Your task to perform on an android device: see tabs open on other devices in the chrome app Image 0: 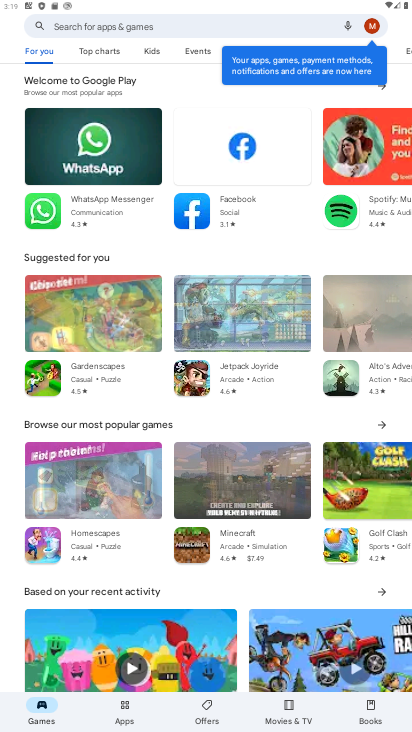
Step 0: press home button
Your task to perform on an android device: see tabs open on other devices in the chrome app Image 1: 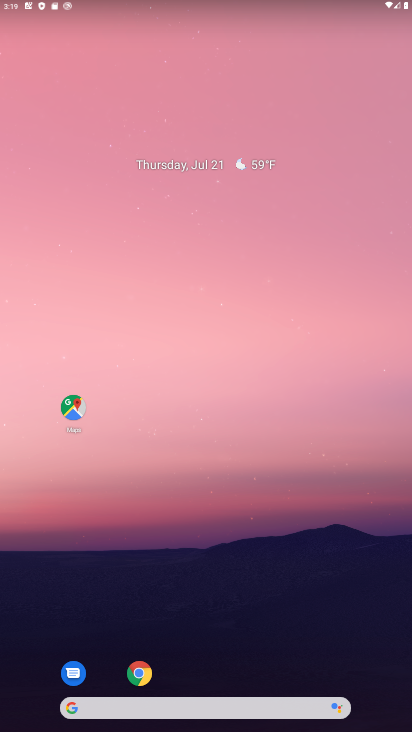
Step 1: drag from (276, 637) to (186, 75)
Your task to perform on an android device: see tabs open on other devices in the chrome app Image 2: 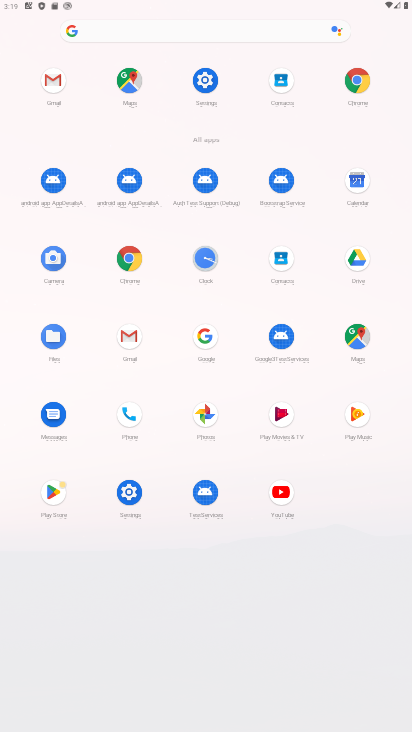
Step 2: click (350, 85)
Your task to perform on an android device: see tabs open on other devices in the chrome app Image 3: 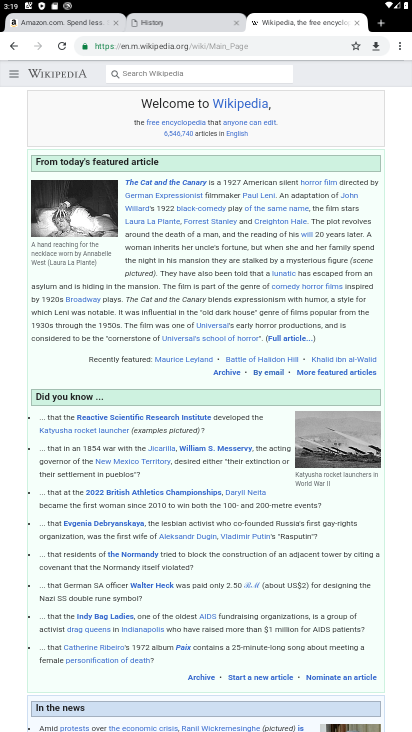
Step 3: click (398, 45)
Your task to perform on an android device: see tabs open on other devices in the chrome app Image 4: 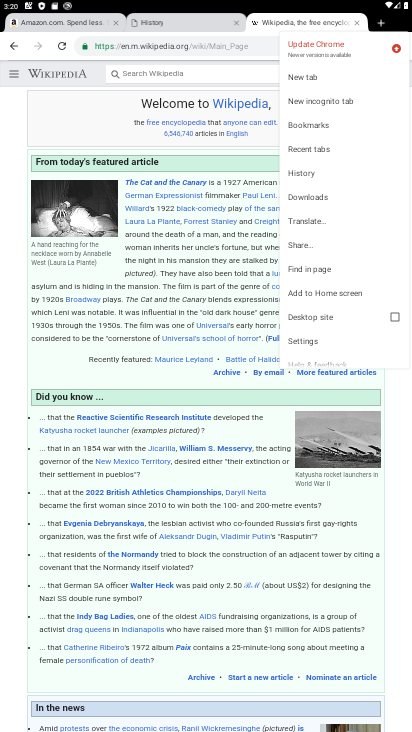
Step 4: click (315, 138)
Your task to perform on an android device: see tabs open on other devices in the chrome app Image 5: 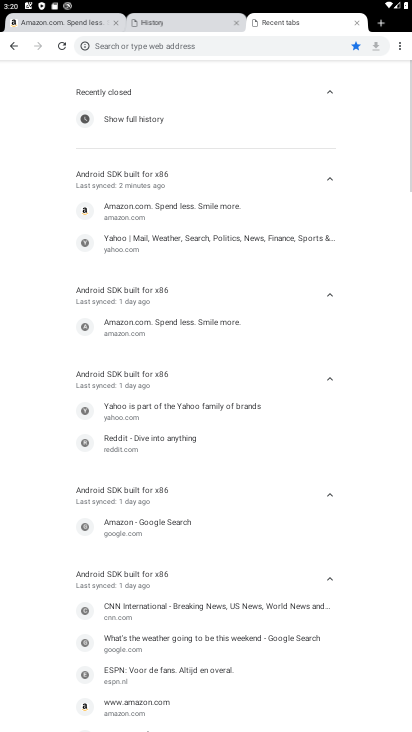
Step 5: task complete